Your task to perform on an android device: check the backup settings in the google photos Image 0: 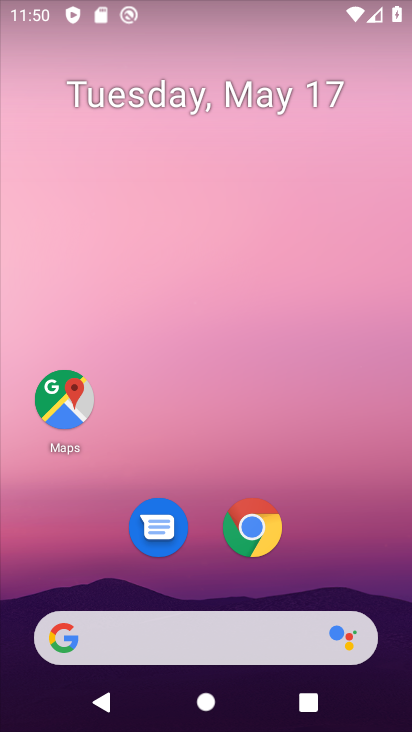
Step 0: drag from (181, 587) to (206, 7)
Your task to perform on an android device: check the backup settings in the google photos Image 1: 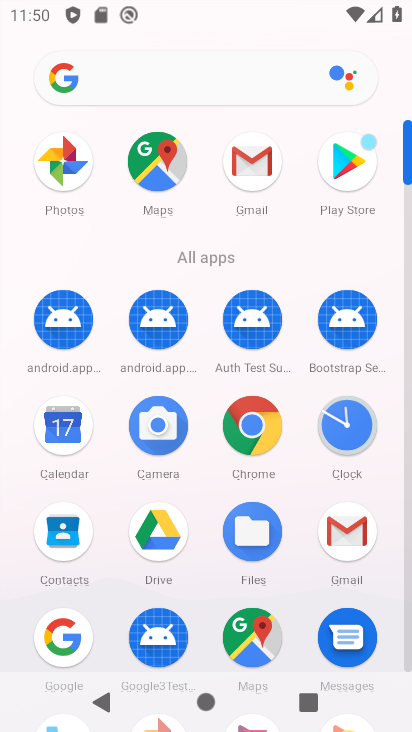
Step 1: drag from (192, 573) to (190, 345)
Your task to perform on an android device: check the backup settings in the google photos Image 2: 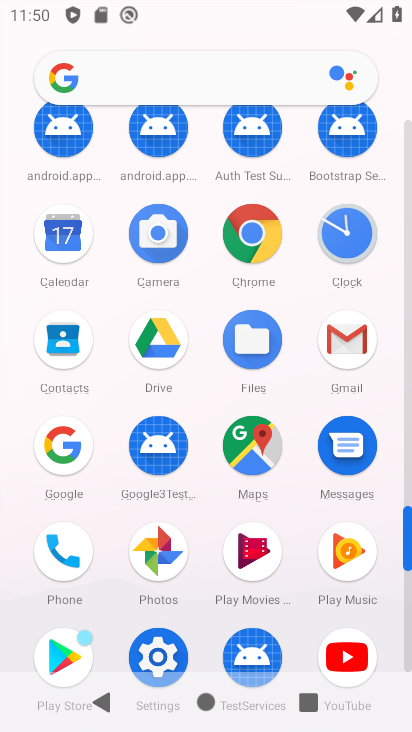
Step 2: click (170, 560)
Your task to perform on an android device: check the backup settings in the google photos Image 3: 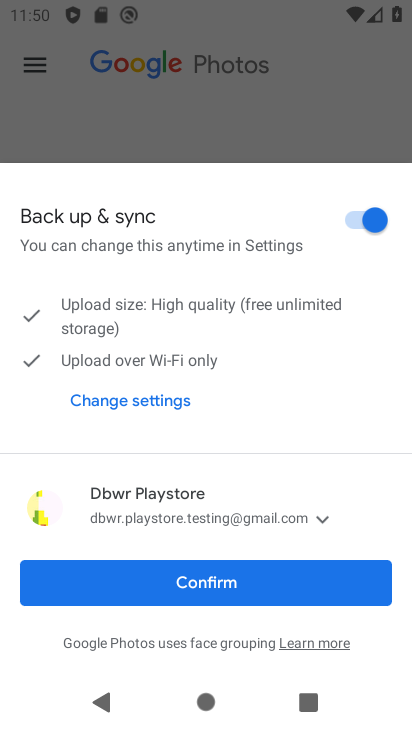
Step 3: click (203, 591)
Your task to perform on an android device: check the backup settings in the google photos Image 4: 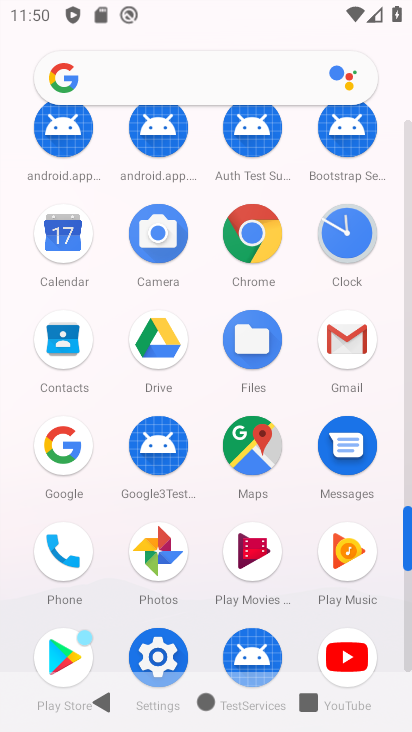
Step 4: click (156, 551)
Your task to perform on an android device: check the backup settings in the google photos Image 5: 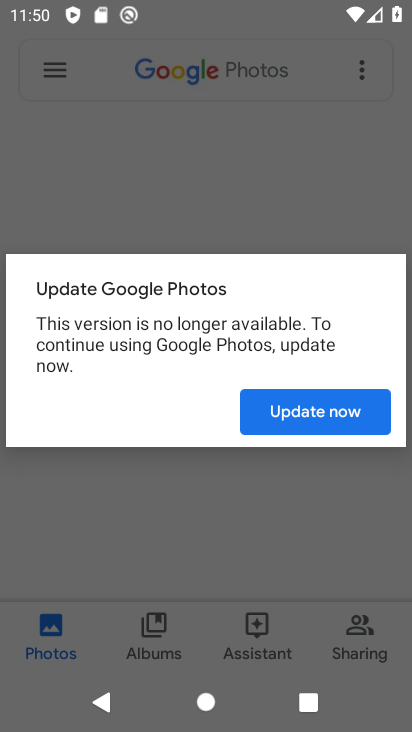
Step 5: click (279, 411)
Your task to perform on an android device: check the backup settings in the google photos Image 6: 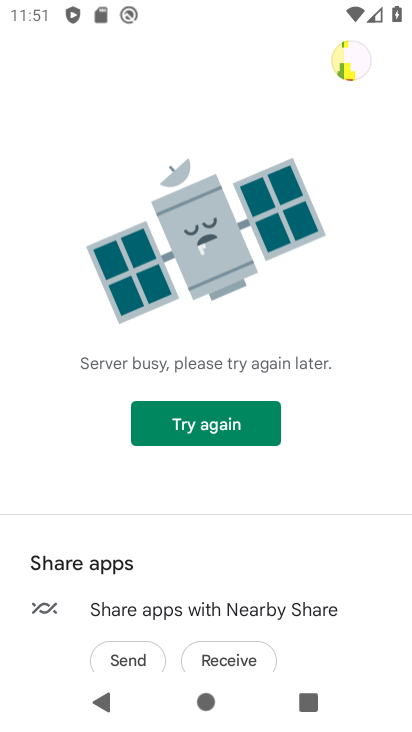
Step 6: click (257, 434)
Your task to perform on an android device: check the backup settings in the google photos Image 7: 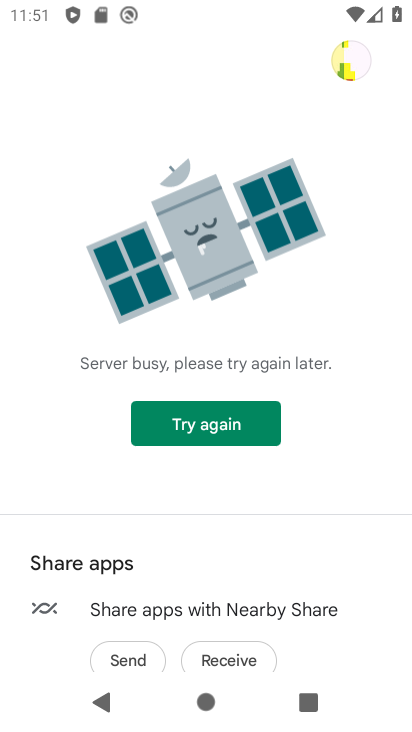
Step 7: press back button
Your task to perform on an android device: check the backup settings in the google photos Image 8: 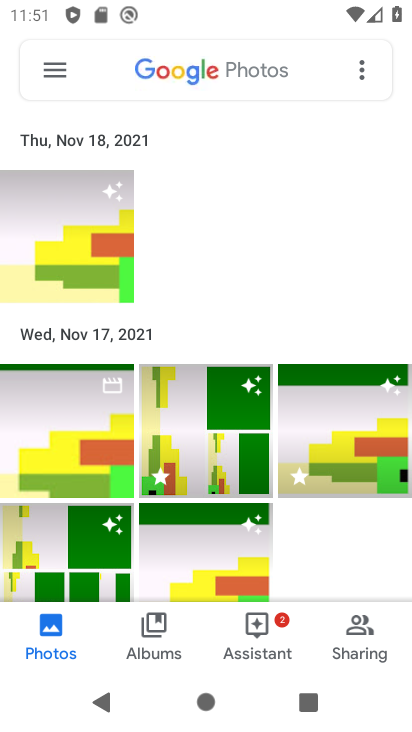
Step 8: click (48, 75)
Your task to perform on an android device: check the backup settings in the google photos Image 9: 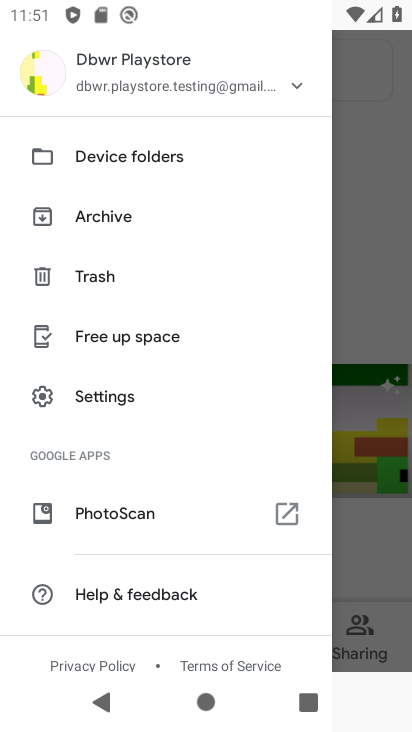
Step 9: click (127, 394)
Your task to perform on an android device: check the backup settings in the google photos Image 10: 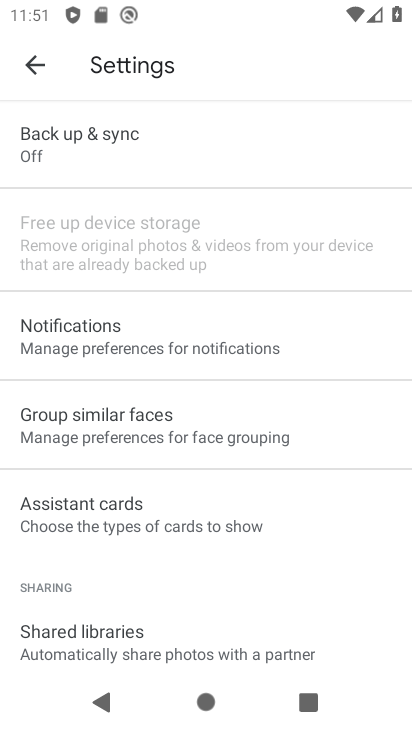
Step 10: click (116, 156)
Your task to perform on an android device: check the backup settings in the google photos Image 11: 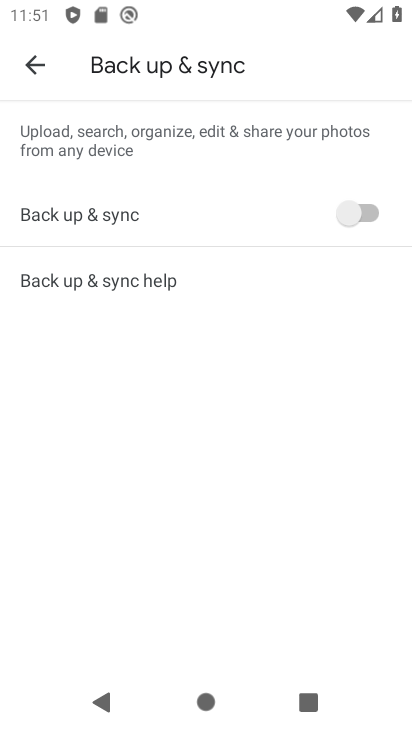
Step 11: task complete